Your task to perform on an android device: Clear the cart on walmart. Search for "usb-c to usb-a" on walmart, select the first entry, add it to the cart, then select checkout. Image 0: 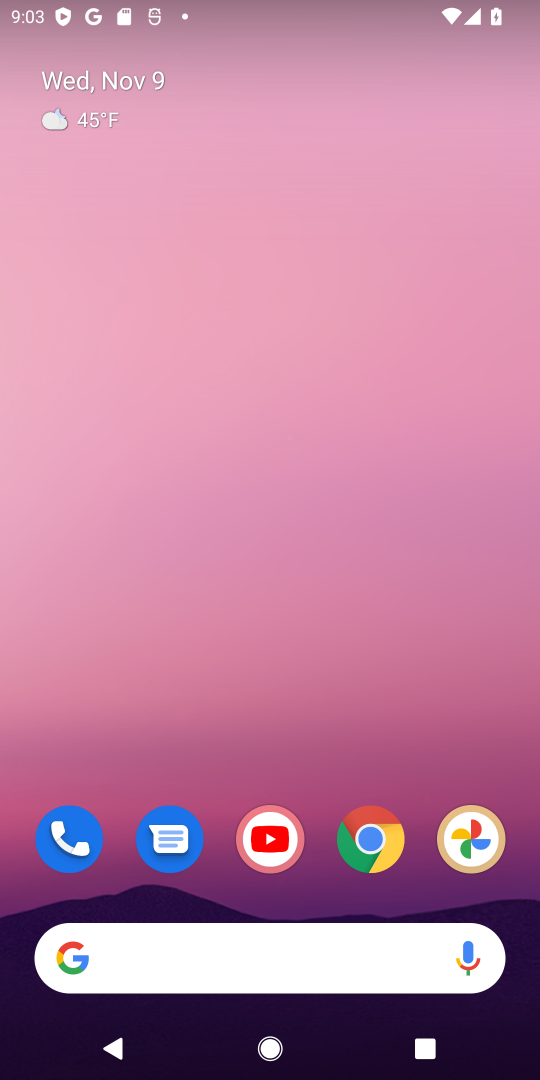
Step 0: drag from (341, 851) to (284, 174)
Your task to perform on an android device: Clear the cart on walmart. Search for "usb-c to usb-a" on walmart, select the first entry, add it to the cart, then select checkout. Image 1: 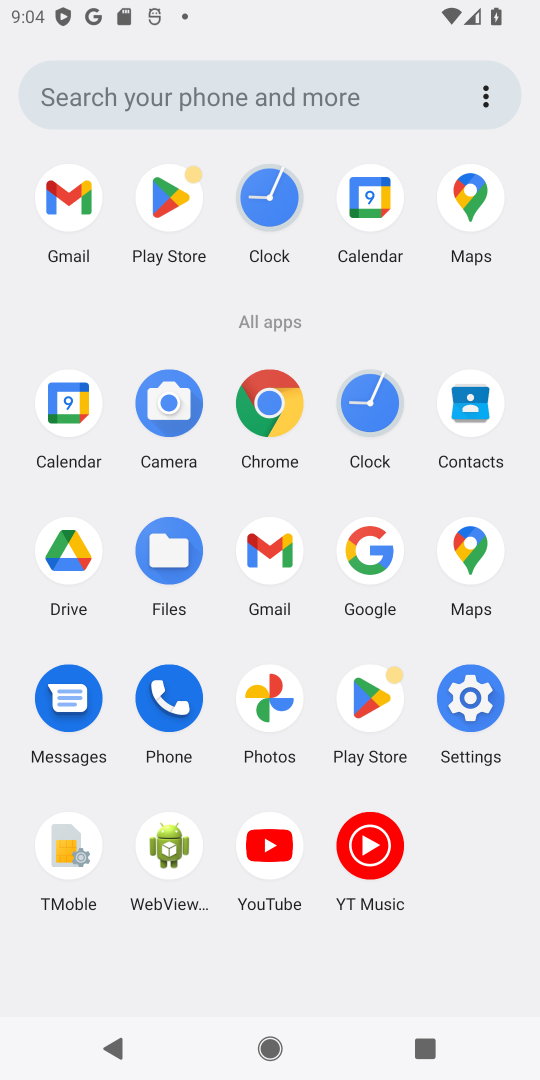
Step 1: click (281, 412)
Your task to perform on an android device: Clear the cart on walmart. Search for "usb-c to usb-a" on walmart, select the first entry, add it to the cart, then select checkout. Image 2: 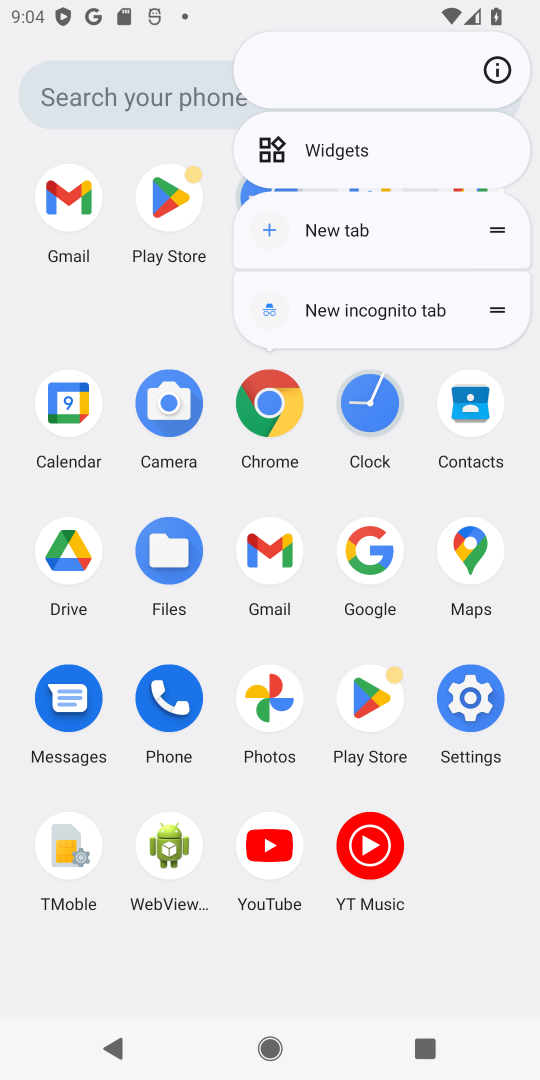
Step 2: click (281, 412)
Your task to perform on an android device: Clear the cart on walmart. Search for "usb-c to usb-a" on walmart, select the first entry, add it to the cart, then select checkout. Image 3: 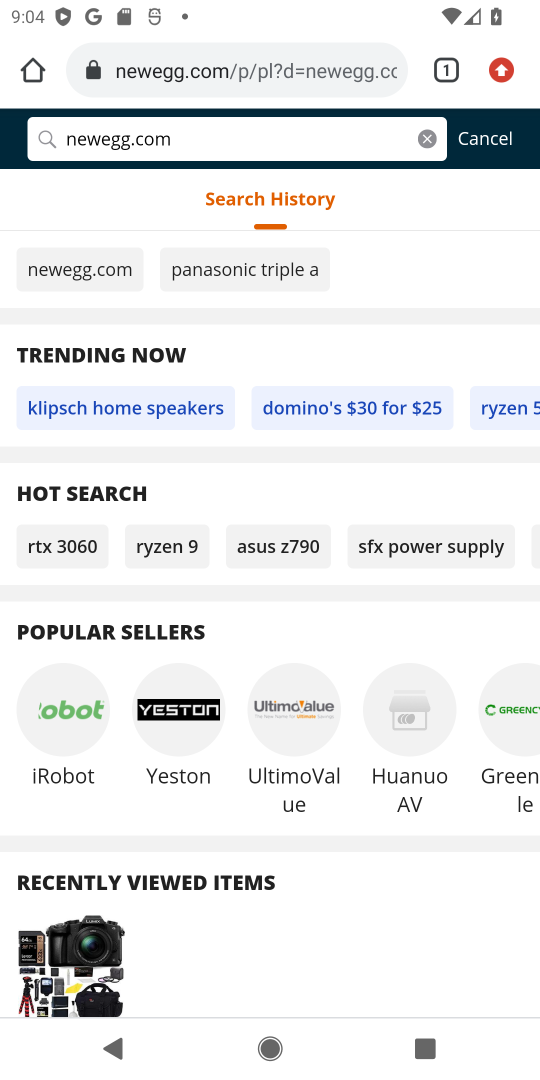
Step 3: click (202, 83)
Your task to perform on an android device: Clear the cart on walmart. Search for "usb-c to usb-a" on walmart, select the first entry, add it to the cart, then select checkout. Image 4: 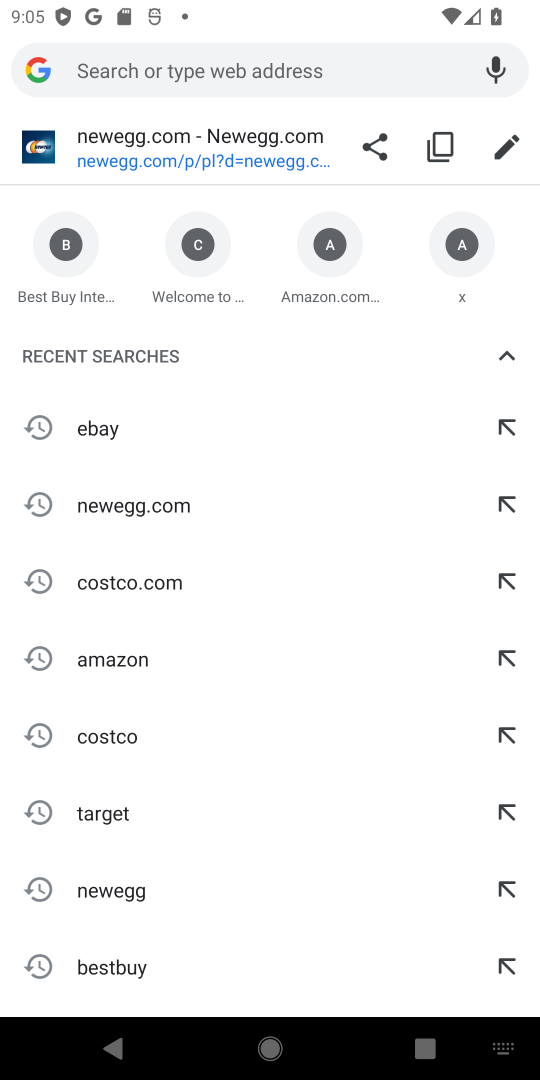
Step 4: type "walmart"
Your task to perform on an android device: Clear the cart on walmart. Search for "usb-c to usb-a" on walmart, select the first entry, add it to the cart, then select checkout. Image 5: 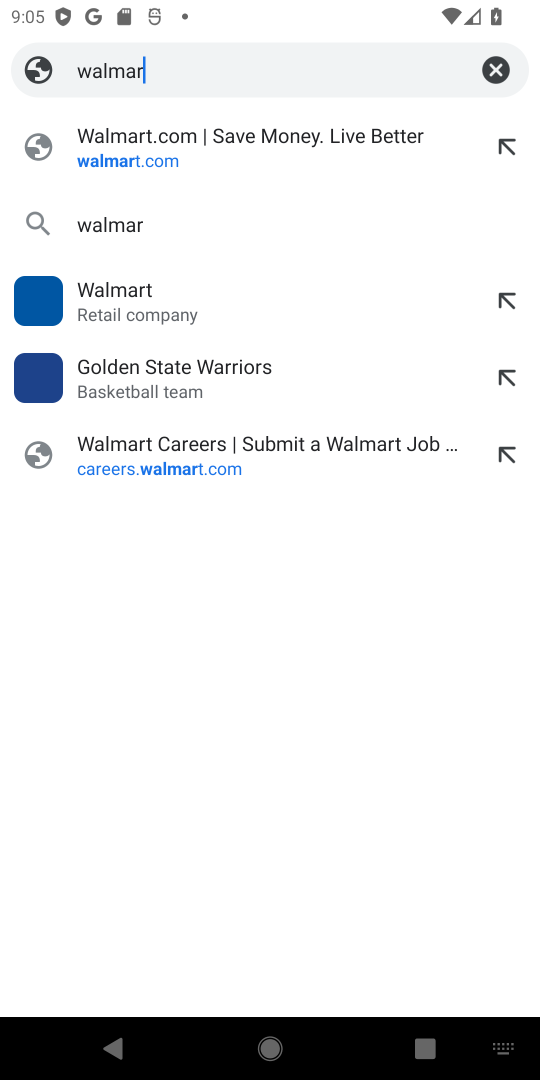
Step 5: press enter
Your task to perform on an android device: Clear the cart on walmart. Search for "usb-c to usb-a" on walmart, select the first entry, add it to the cart, then select checkout. Image 6: 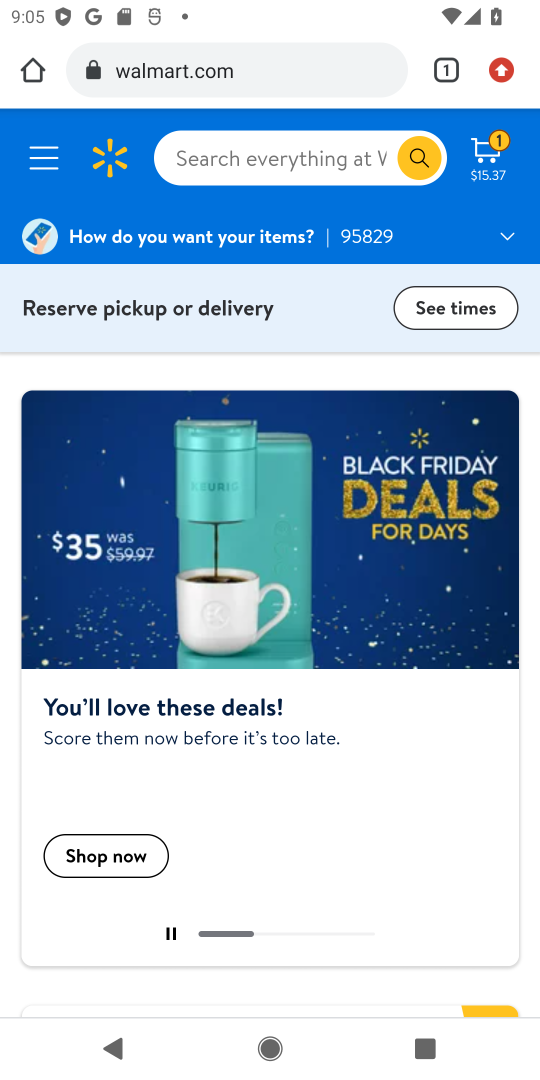
Step 6: click (280, 156)
Your task to perform on an android device: Clear the cart on walmart. Search for "usb-c to usb-a" on walmart, select the first entry, add it to the cart, then select checkout. Image 7: 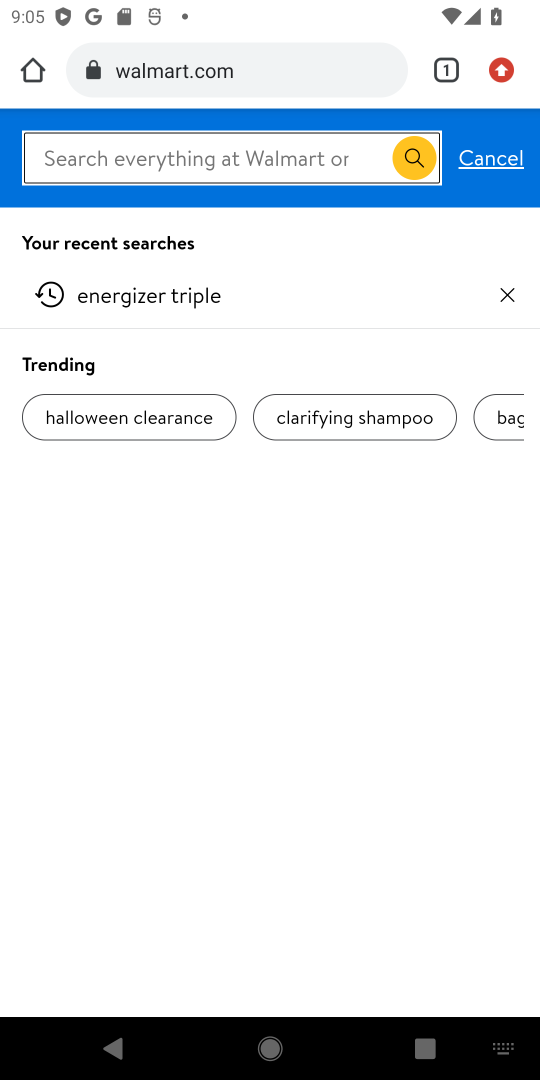
Step 7: type "usb-c to usb-a"
Your task to perform on an android device: Clear the cart on walmart. Search for "usb-c to usb-a" on walmart, select the first entry, add it to the cart, then select checkout. Image 8: 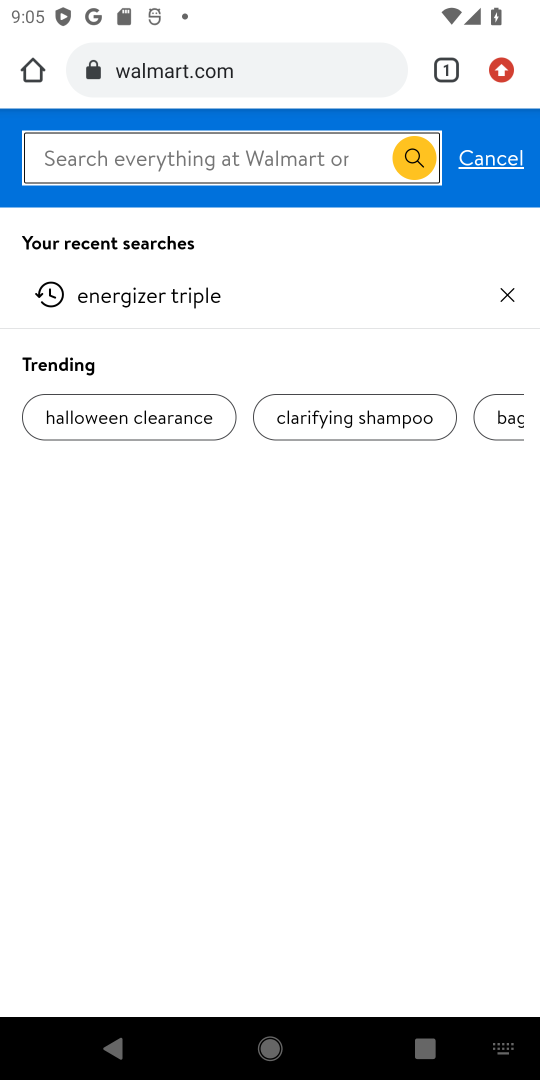
Step 8: press enter
Your task to perform on an android device: Clear the cart on walmart. Search for "usb-c to usb-a" on walmart, select the first entry, add it to the cart, then select checkout. Image 9: 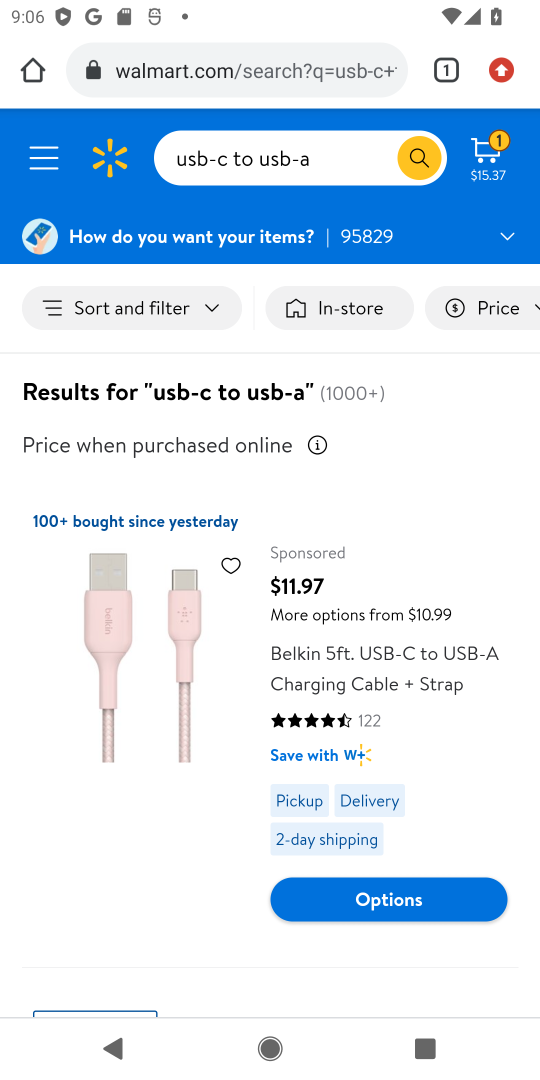
Step 9: click (422, 895)
Your task to perform on an android device: Clear the cart on walmart. Search for "usb-c to usb-a" on walmart, select the first entry, add it to the cart, then select checkout. Image 10: 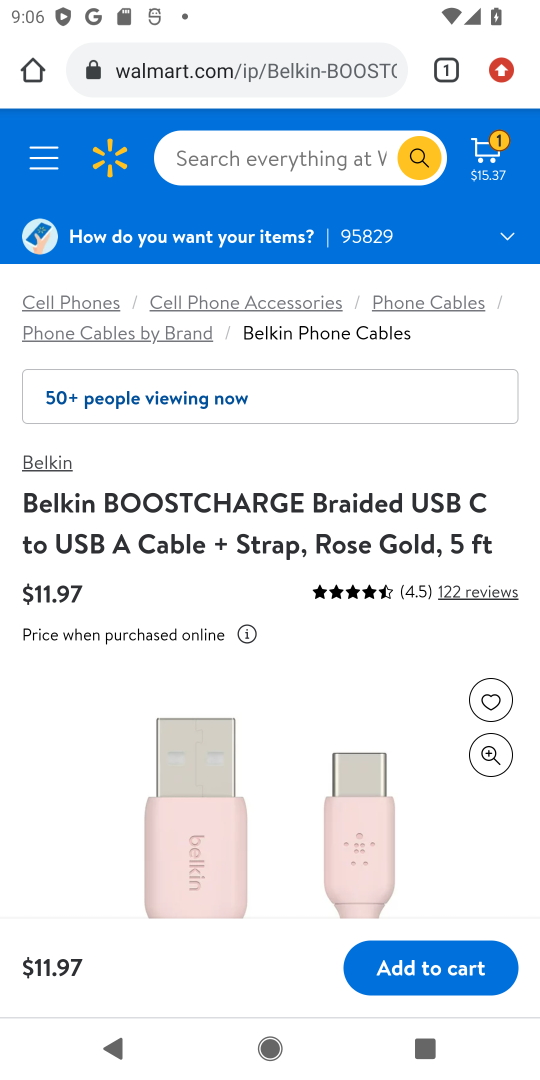
Step 10: click (438, 955)
Your task to perform on an android device: Clear the cart on walmart. Search for "usb-c to usb-a" on walmart, select the first entry, add it to the cart, then select checkout. Image 11: 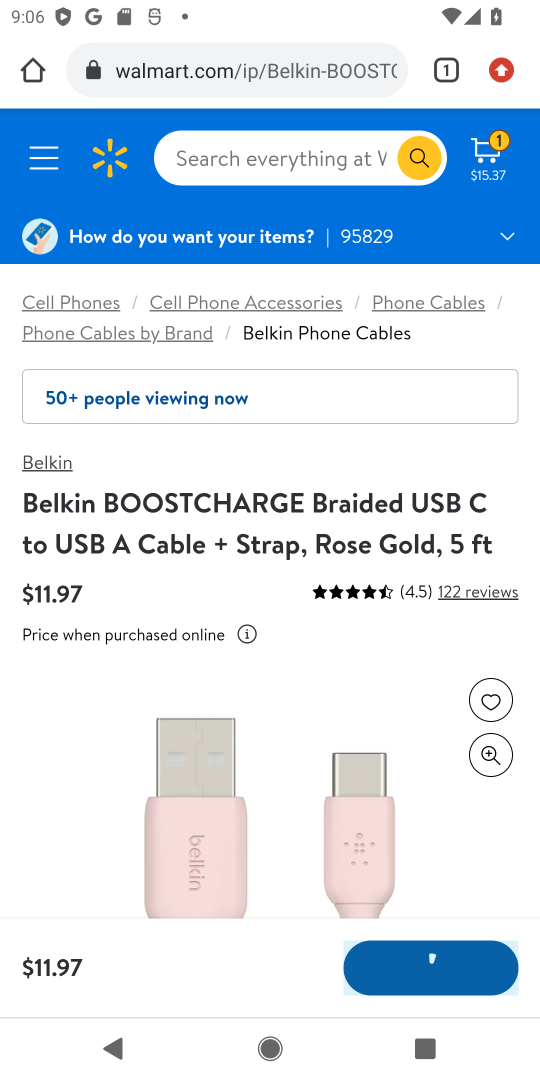
Step 11: click (438, 956)
Your task to perform on an android device: Clear the cart on walmart. Search for "usb-c to usb-a" on walmart, select the first entry, add it to the cart, then select checkout. Image 12: 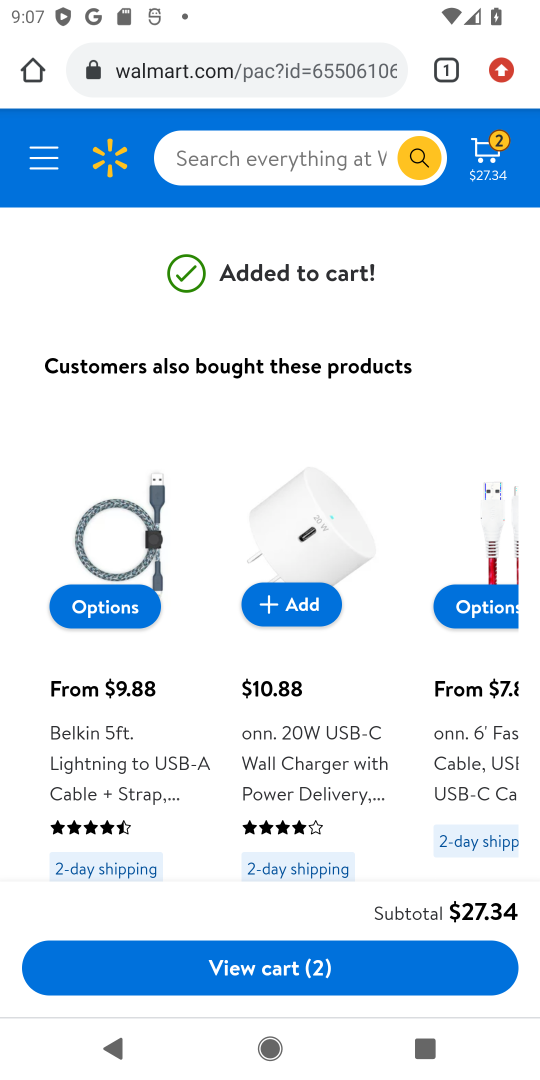
Step 12: click (496, 125)
Your task to perform on an android device: Clear the cart on walmart. Search for "usb-c to usb-a" on walmart, select the first entry, add it to the cart, then select checkout. Image 13: 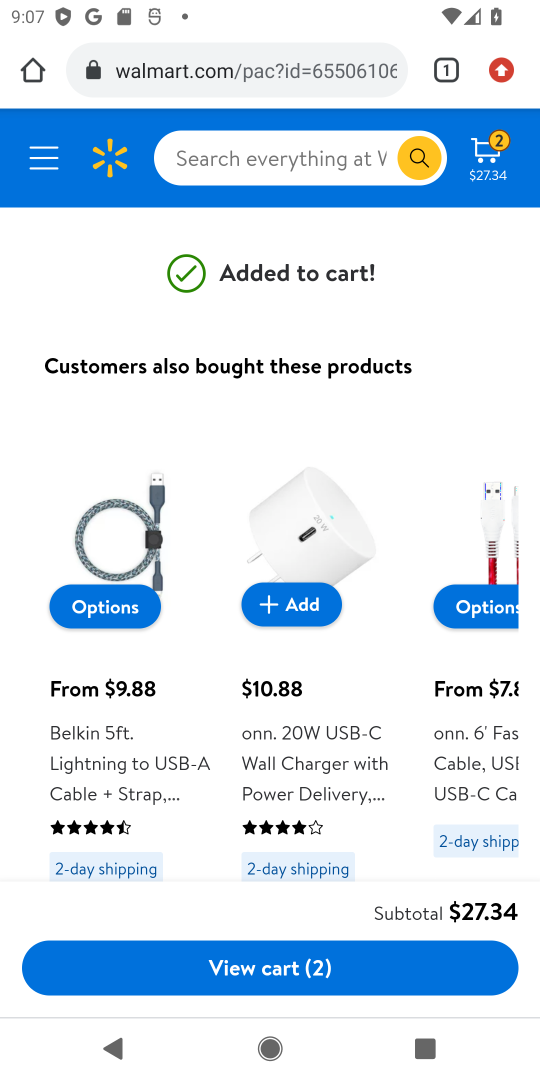
Step 13: click (496, 158)
Your task to perform on an android device: Clear the cart on walmart. Search for "usb-c to usb-a" on walmart, select the first entry, add it to the cart, then select checkout. Image 14: 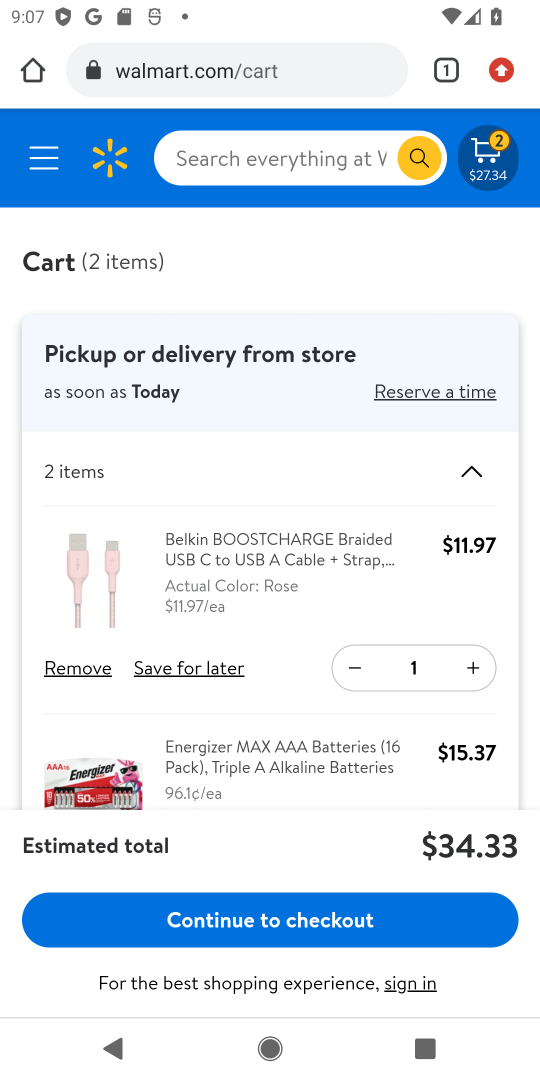
Step 14: click (335, 938)
Your task to perform on an android device: Clear the cart on walmart. Search for "usb-c to usb-a" on walmart, select the first entry, add it to the cart, then select checkout. Image 15: 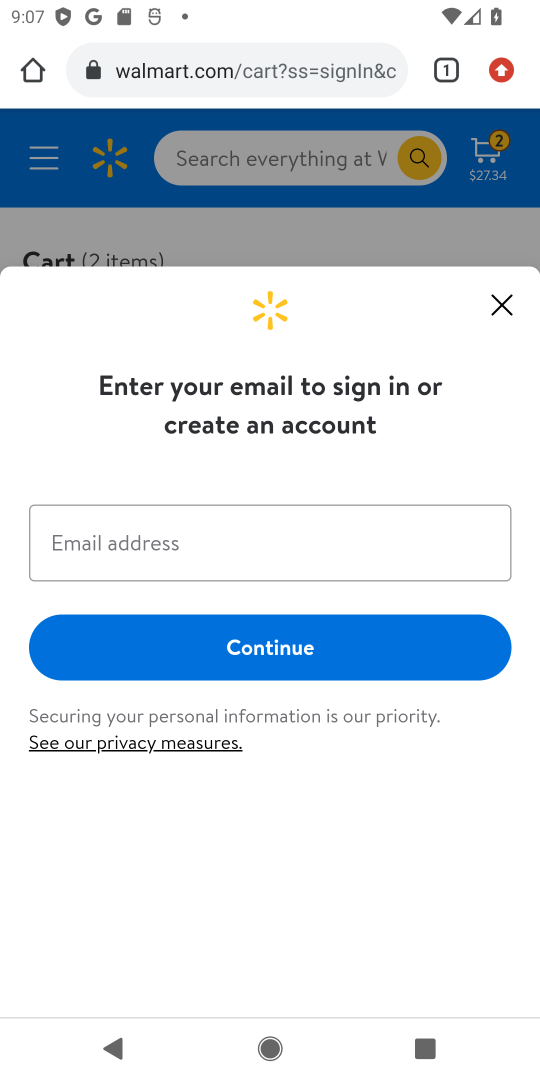
Step 15: task complete